Your task to perform on an android device: change the clock display to show seconds Image 0: 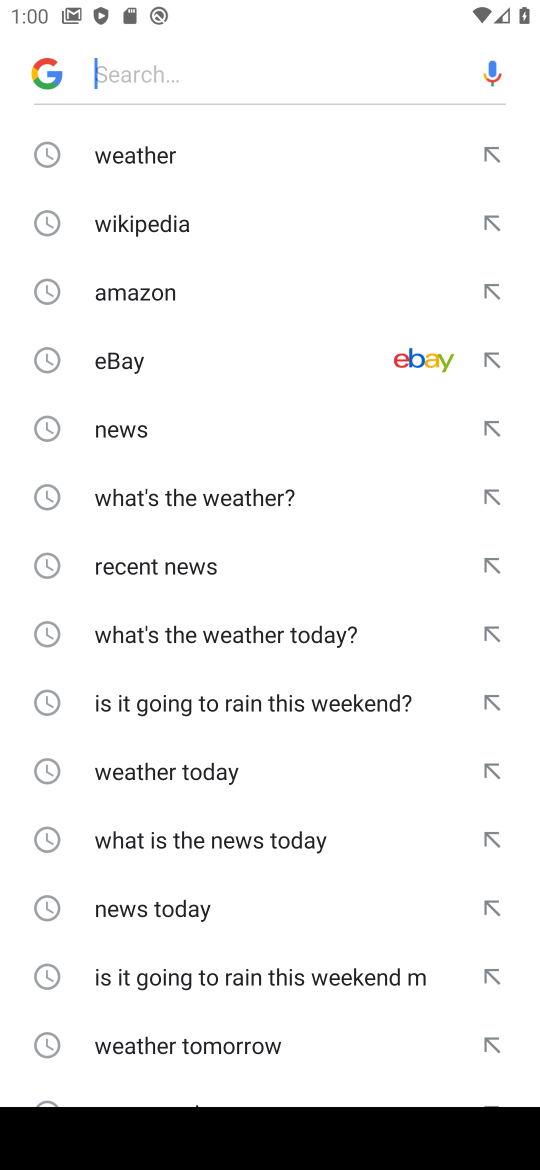
Step 0: press back button
Your task to perform on an android device: change the clock display to show seconds Image 1: 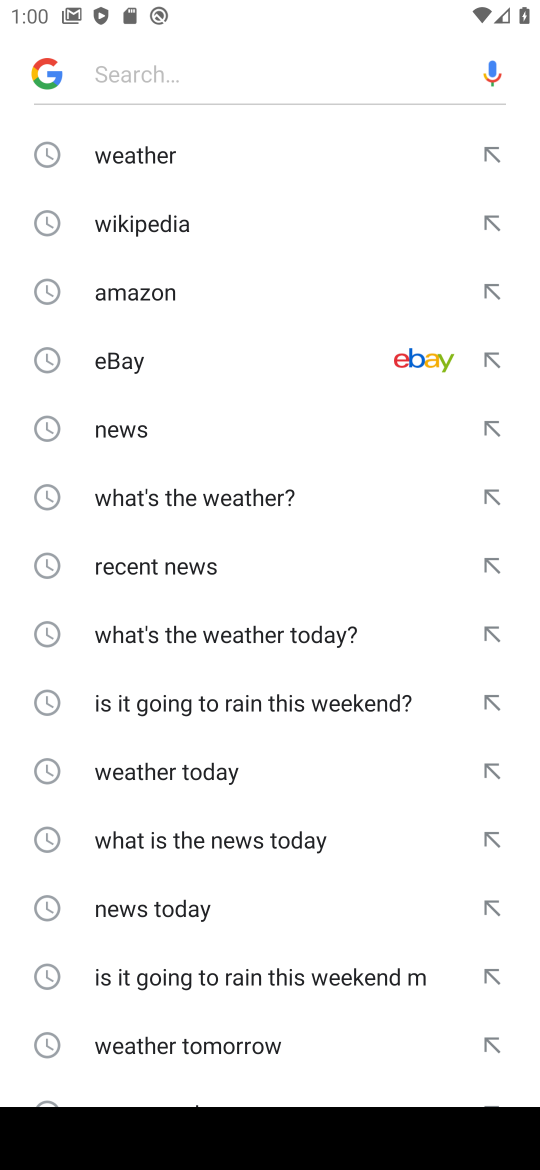
Step 1: press back button
Your task to perform on an android device: change the clock display to show seconds Image 2: 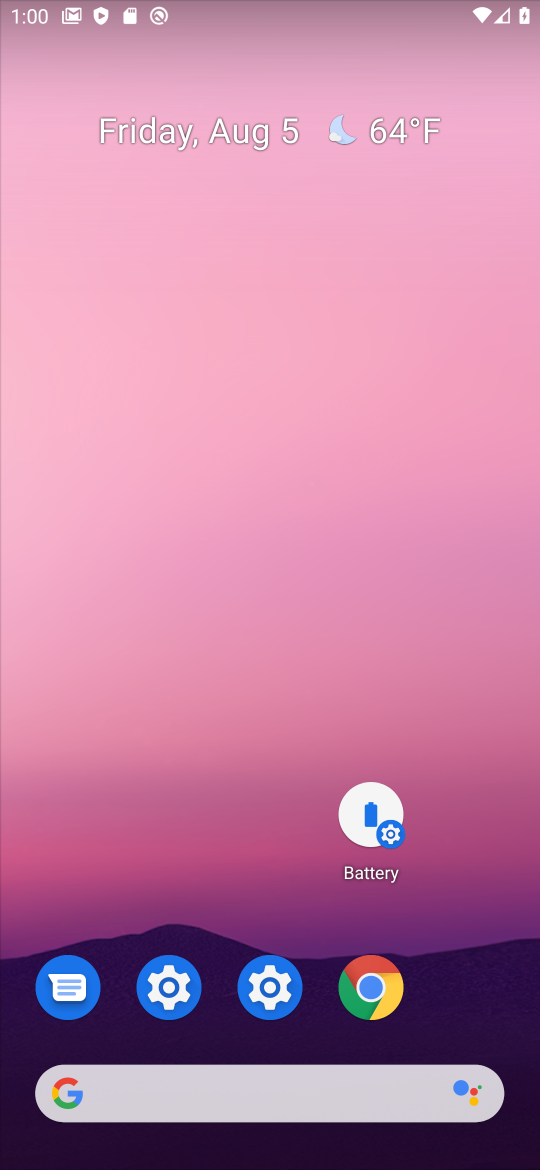
Step 2: press back button
Your task to perform on an android device: change the clock display to show seconds Image 3: 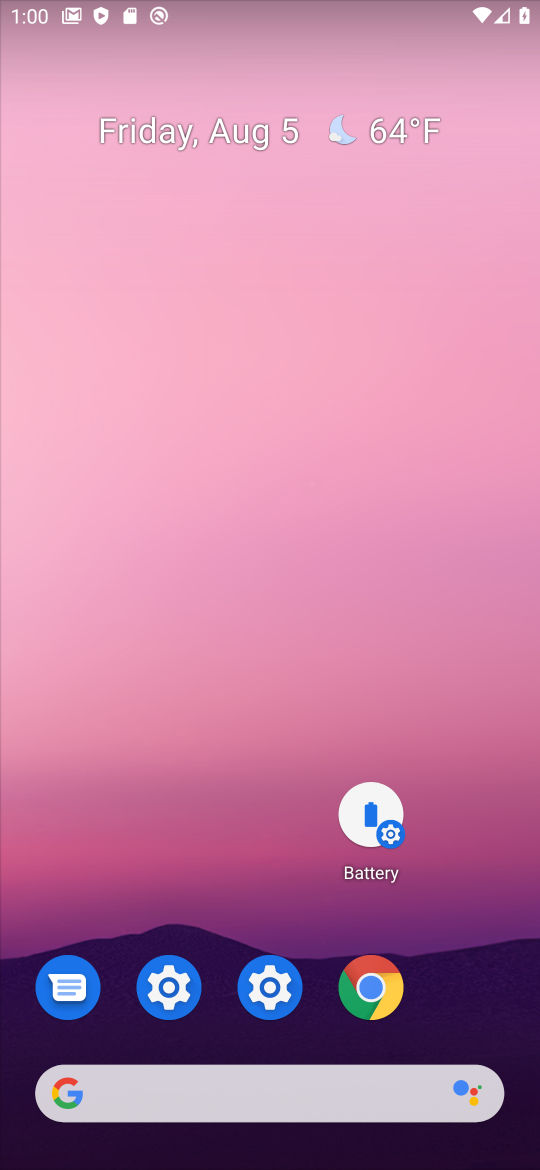
Step 3: press home button
Your task to perform on an android device: change the clock display to show seconds Image 4: 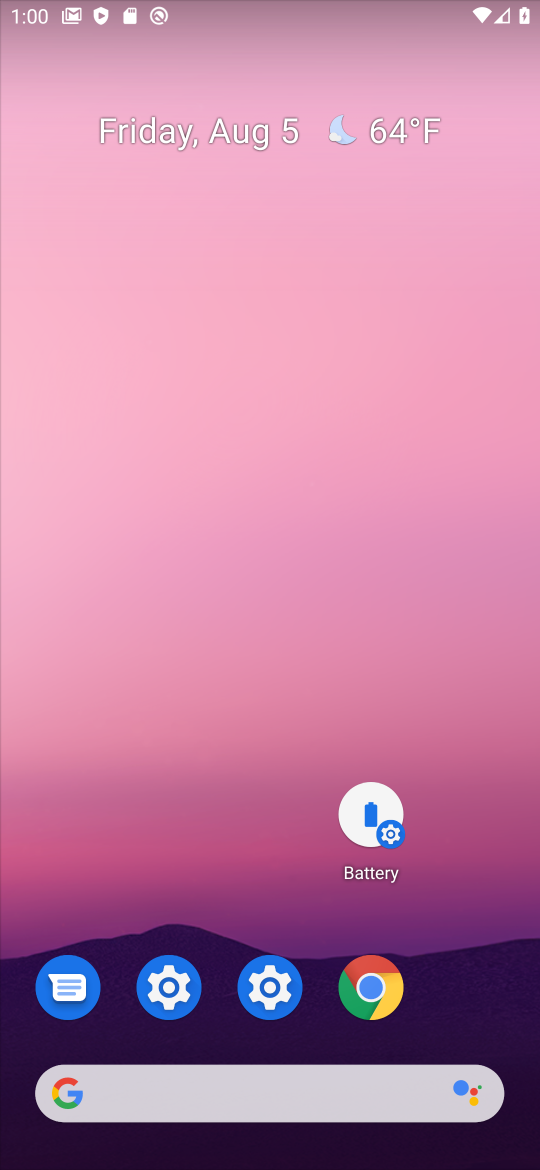
Step 4: drag from (270, 446) to (322, 147)
Your task to perform on an android device: change the clock display to show seconds Image 5: 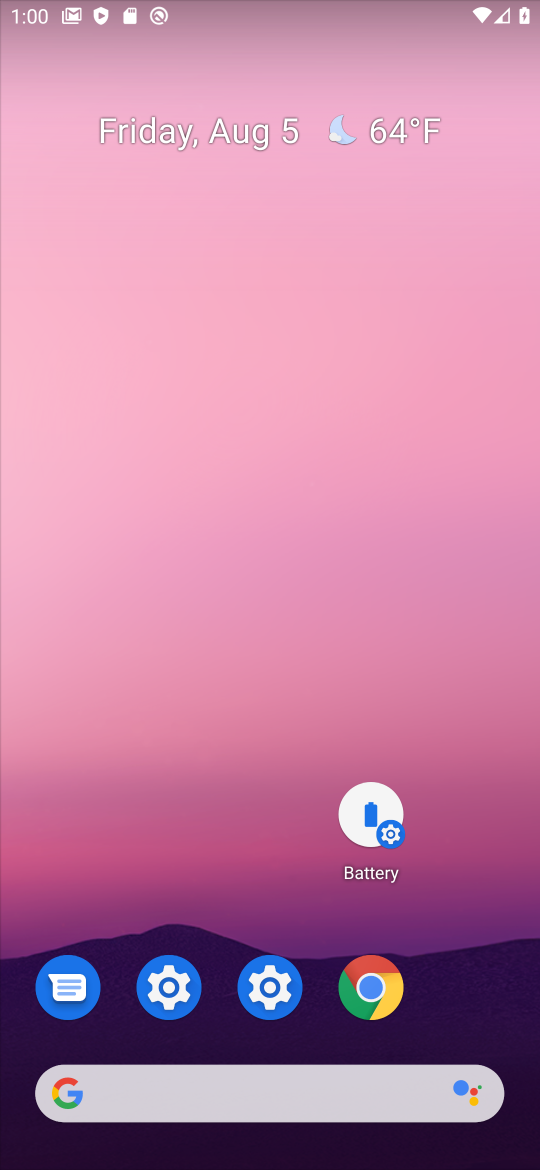
Step 5: click (231, 148)
Your task to perform on an android device: change the clock display to show seconds Image 6: 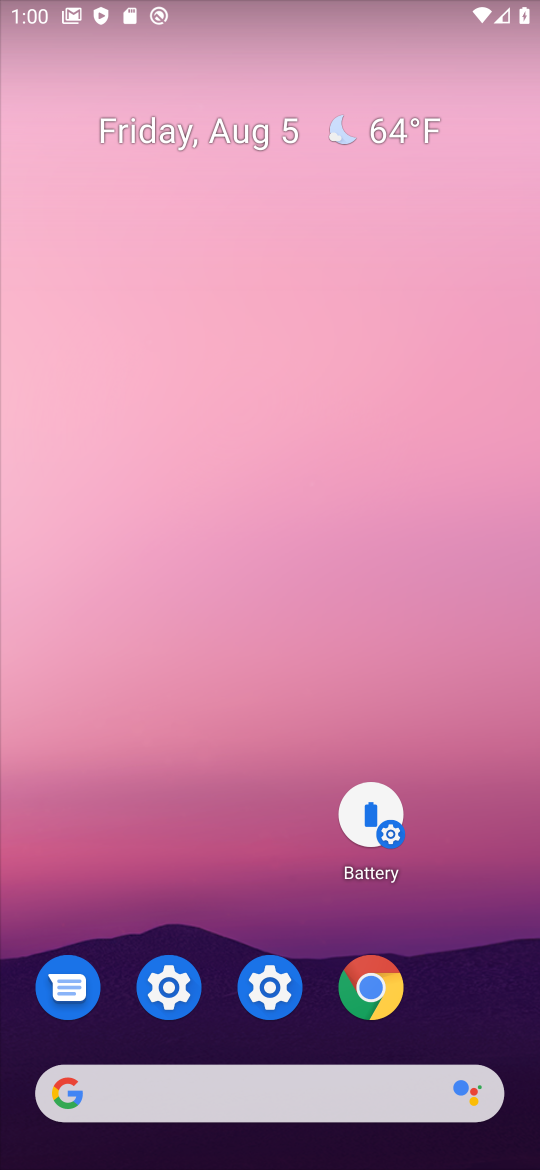
Step 6: drag from (235, 563) to (299, 593)
Your task to perform on an android device: change the clock display to show seconds Image 7: 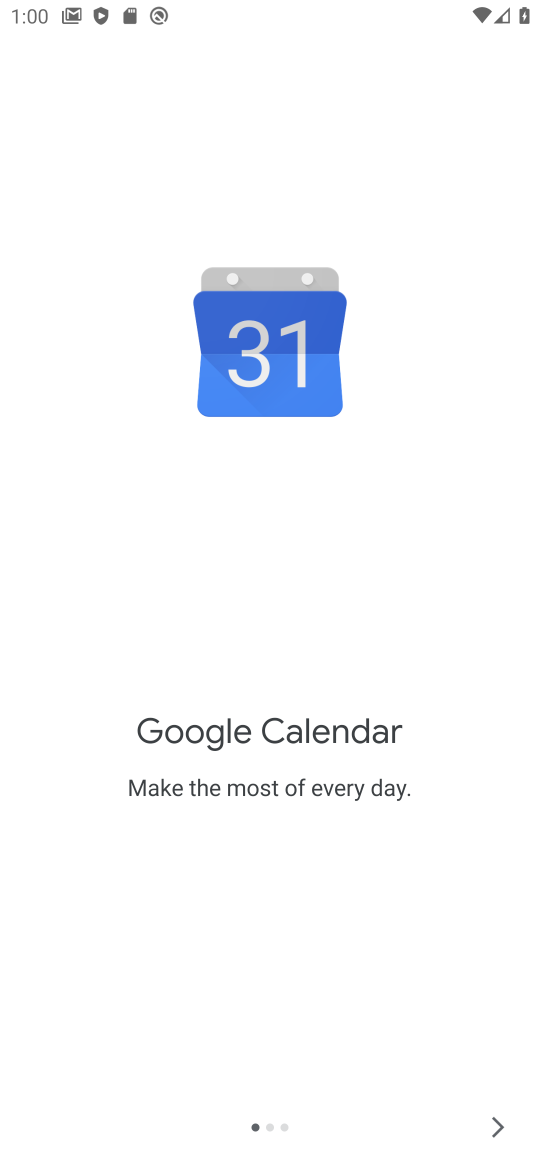
Step 7: press back button
Your task to perform on an android device: change the clock display to show seconds Image 8: 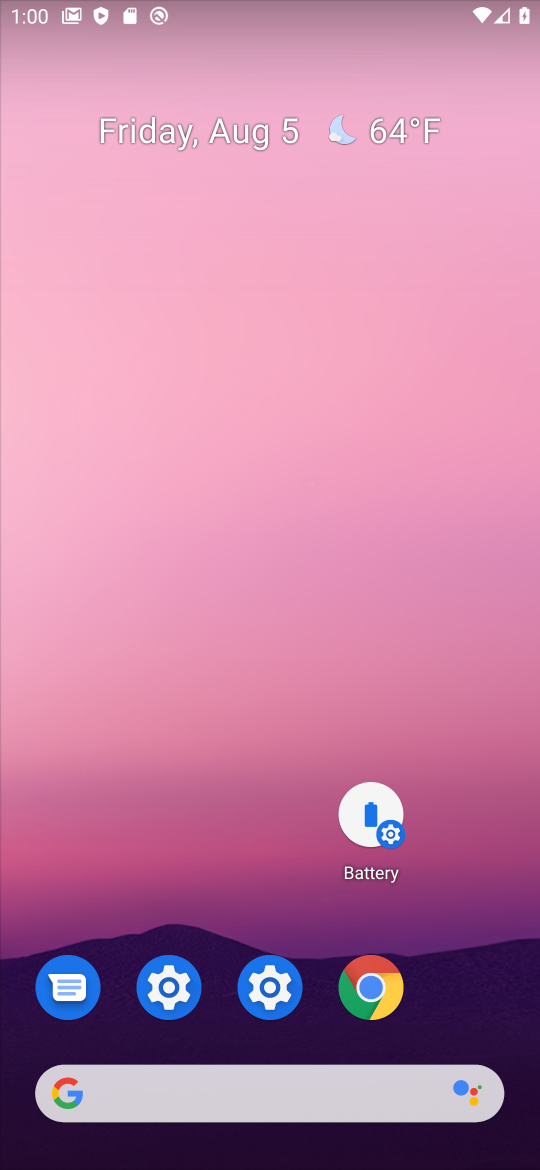
Step 8: drag from (275, 962) to (144, 525)
Your task to perform on an android device: change the clock display to show seconds Image 9: 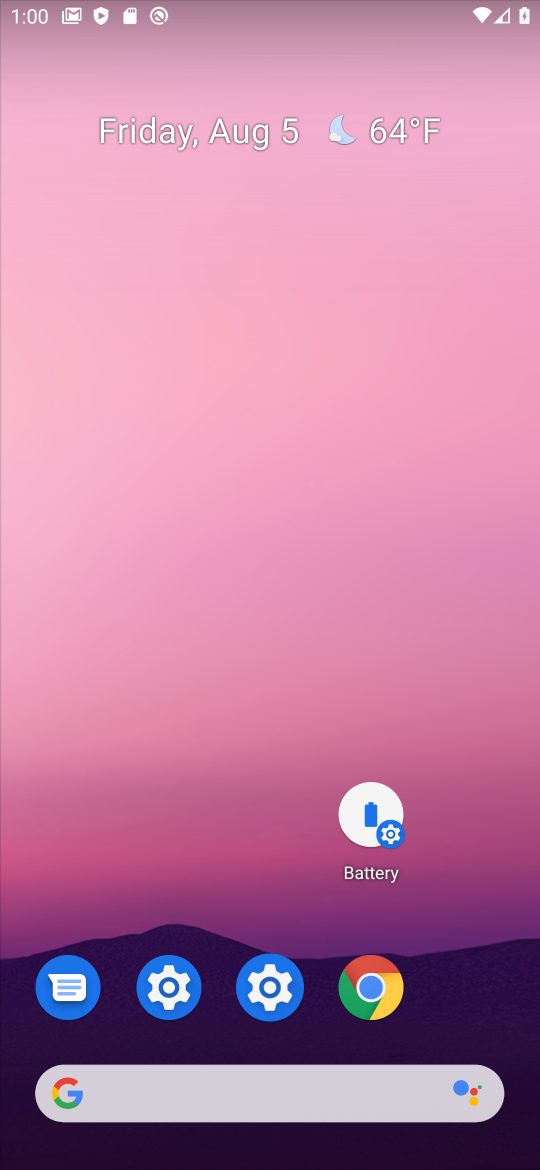
Step 9: drag from (248, 620) to (242, 452)
Your task to perform on an android device: change the clock display to show seconds Image 10: 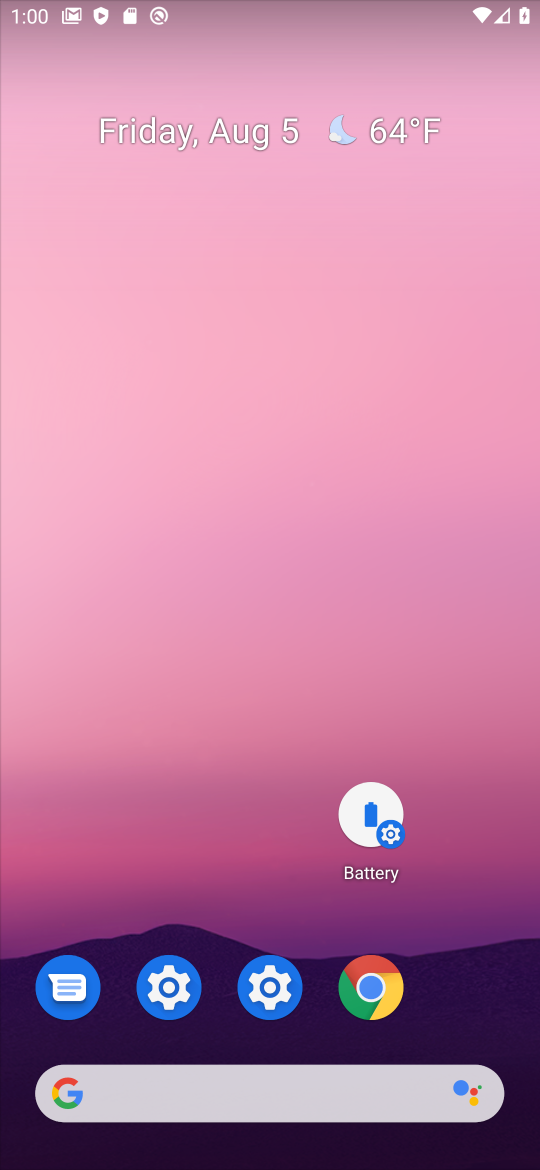
Step 10: drag from (253, 883) to (212, 506)
Your task to perform on an android device: change the clock display to show seconds Image 11: 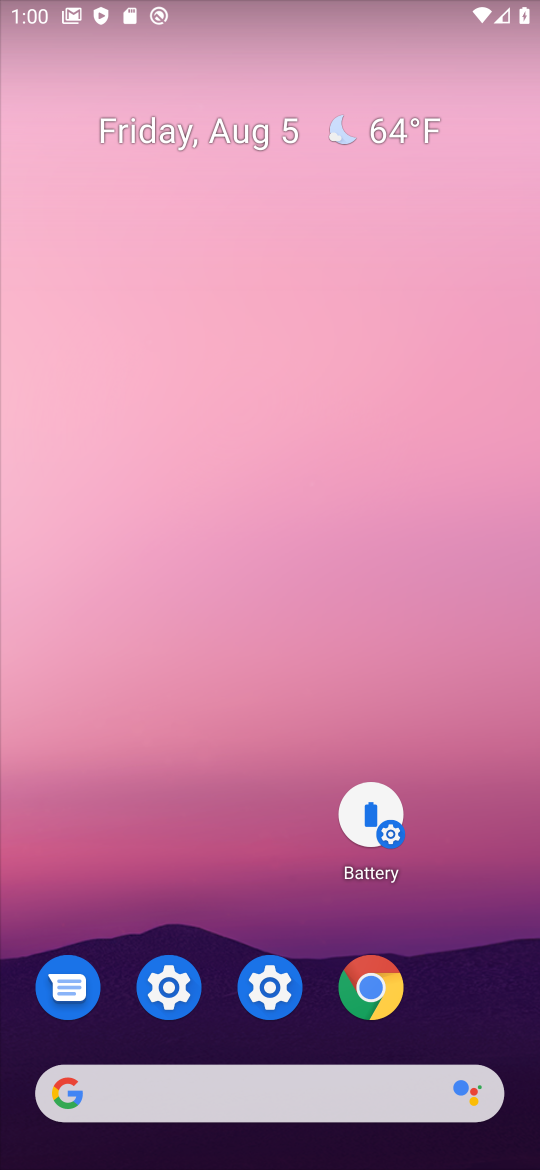
Step 11: drag from (255, 934) to (220, 421)
Your task to perform on an android device: change the clock display to show seconds Image 12: 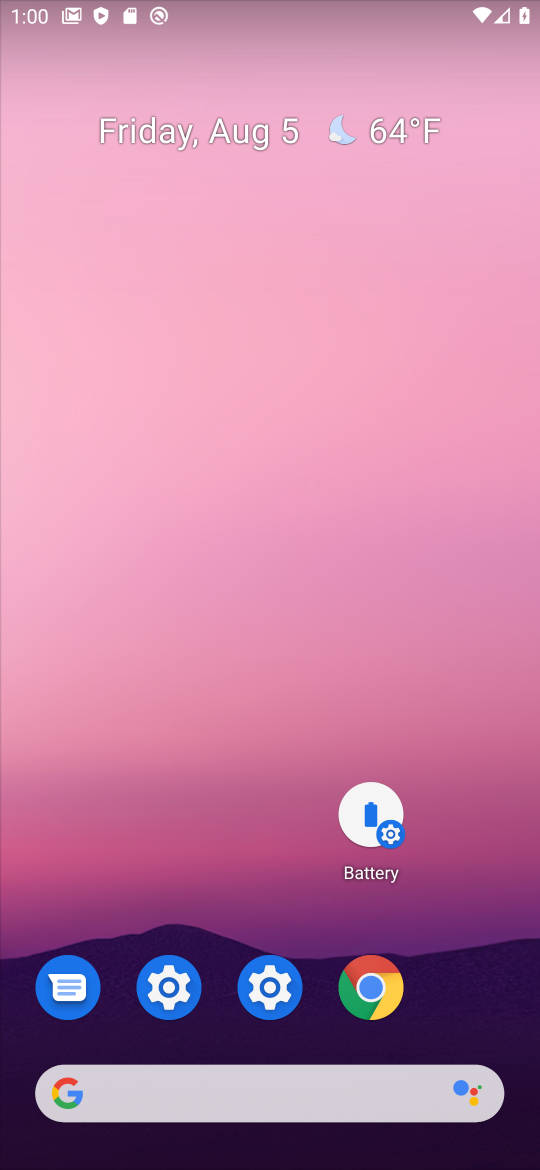
Step 12: drag from (308, 888) to (308, 405)
Your task to perform on an android device: change the clock display to show seconds Image 13: 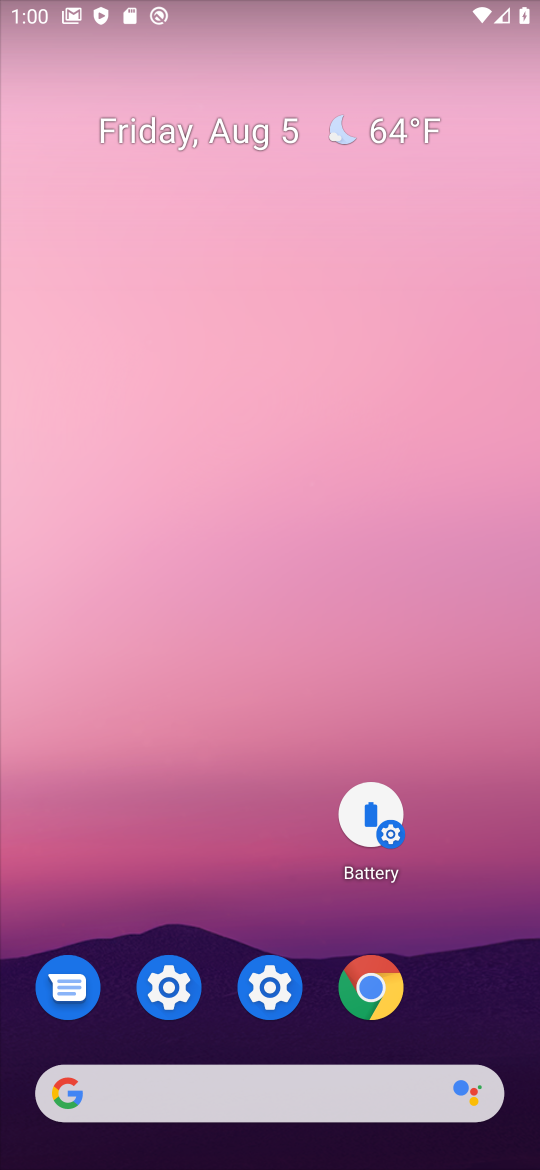
Step 13: drag from (339, 810) to (348, 237)
Your task to perform on an android device: change the clock display to show seconds Image 14: 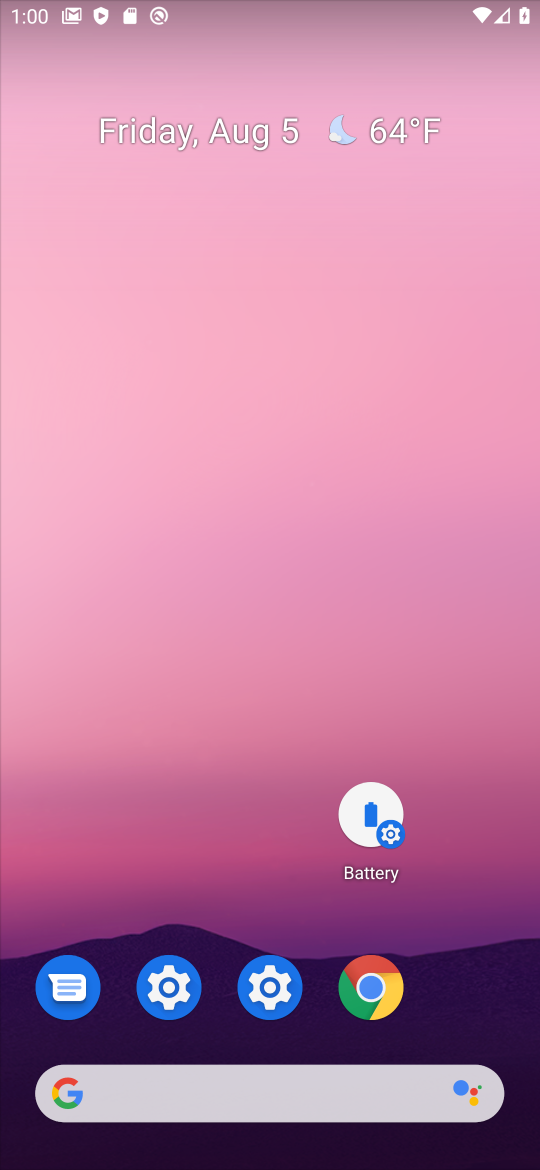
Step 14: drag from (212, 535) to (229, 429)
Your task to perform on an android device: change the clock display to show seconds Image 15: 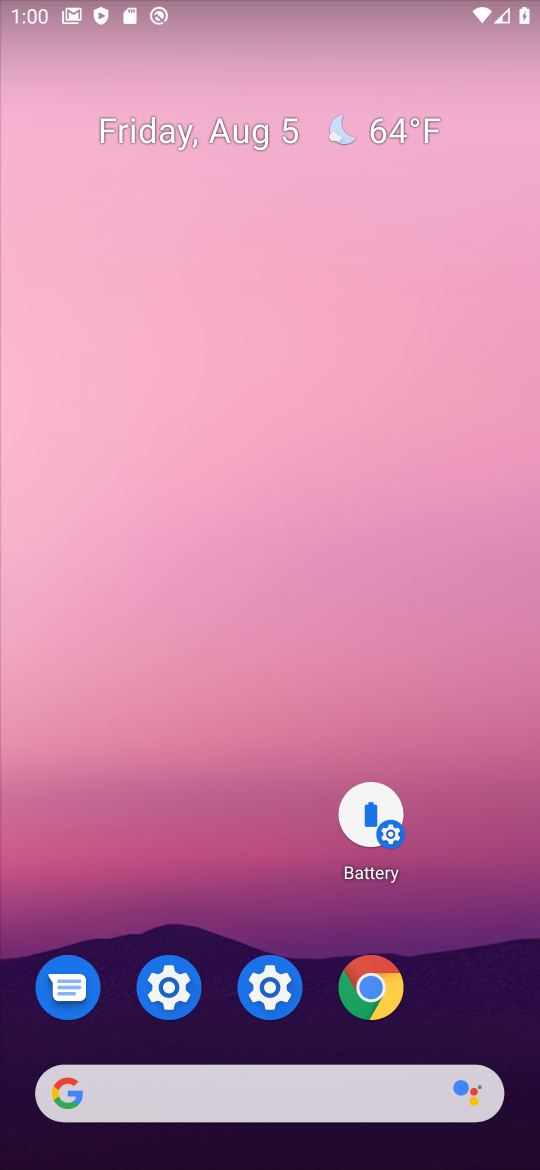
Step 15: click (301, 601)
Your task to perform on an android device: change the clock display to show seconds Image 16: 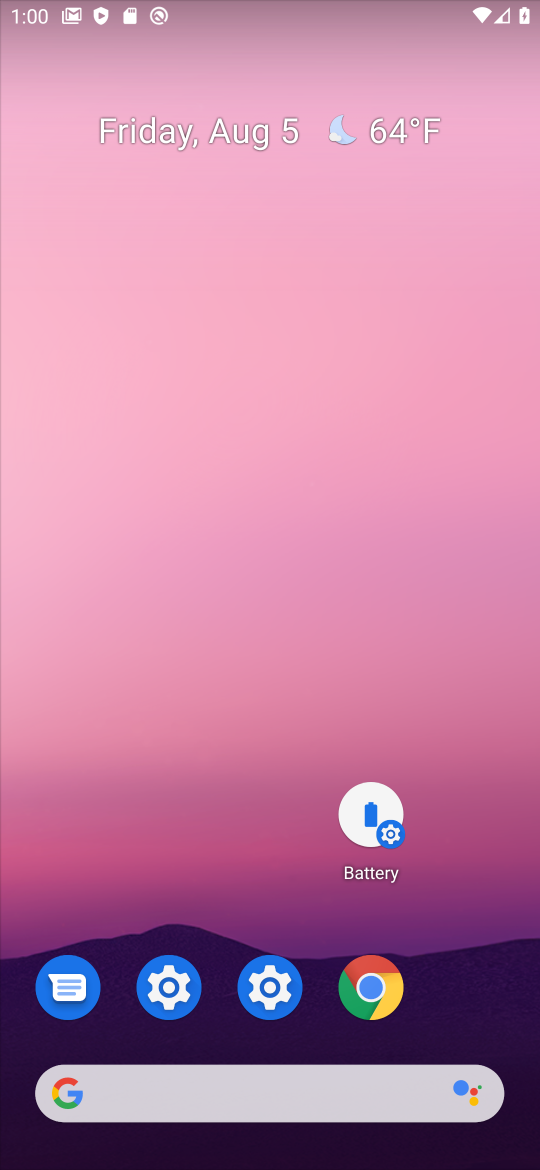
Step 16: drag from (276, 800) to (251, 416)
Your task to perform on an android device: change the clock display to show seconds Image 17: 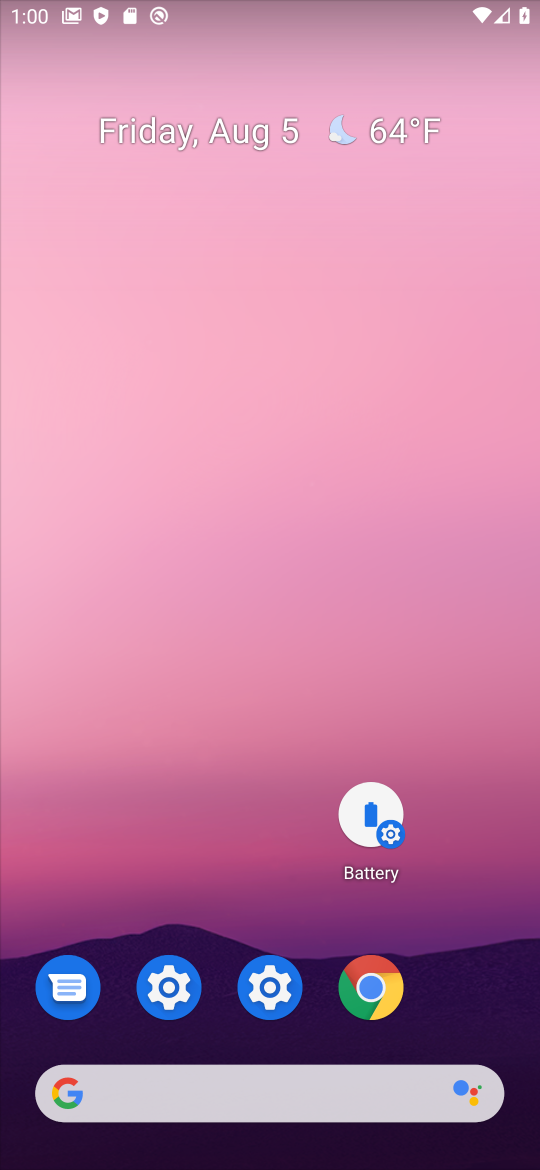
Step 17: drag from (307, 1016) to (187, 403)
Your task to perform on an android device: change the clock display to show seconds Image 18: 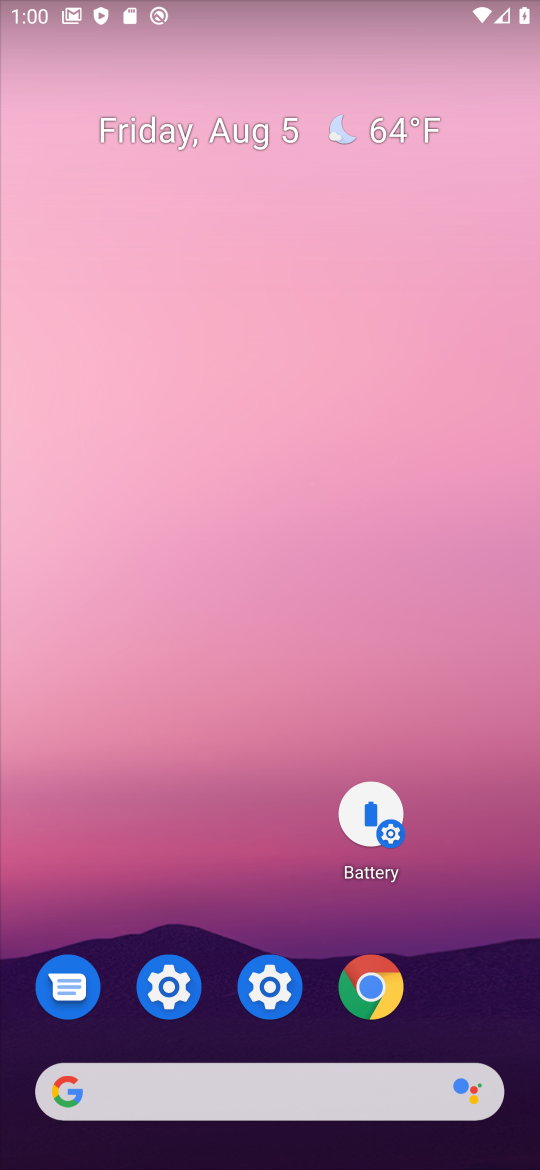
Step 18: drag from (270, 990) to (345, 676)
Your task to perform on an android device: change the clock display to show seconds Image 19: 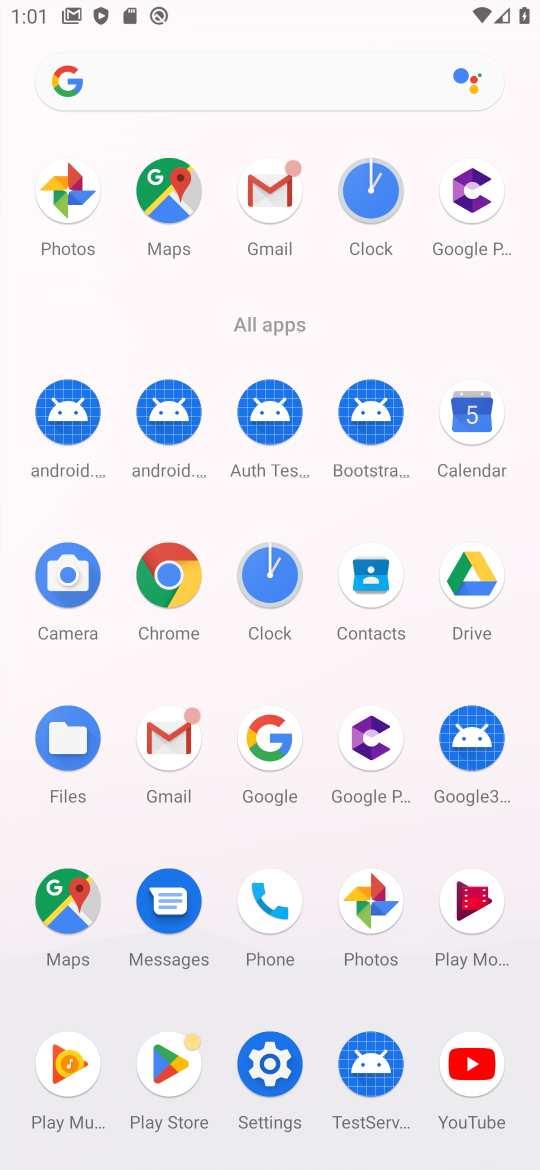
Step 19: click (369, 204)
Your task to perform on an android device: change the clock display to show seconds Image 20: 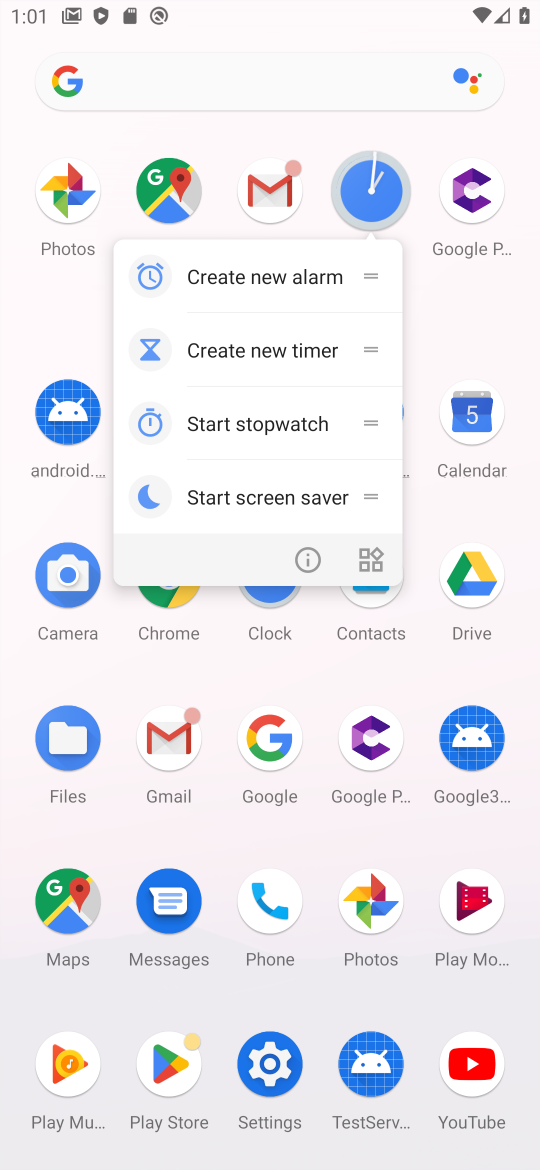
Step 20: click (375, 198)
Your task to perform on an android device: change the clock display to show seconds Image 21: 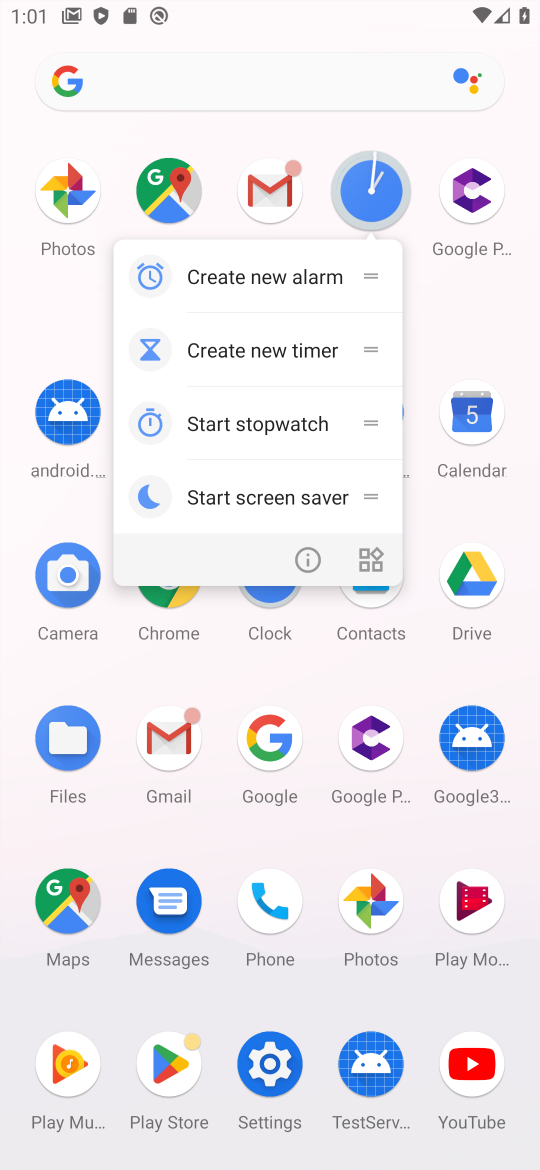
Step 21: click (375, 193)
Your task to perform on an android device: change the clock display to show seconds Image 22: 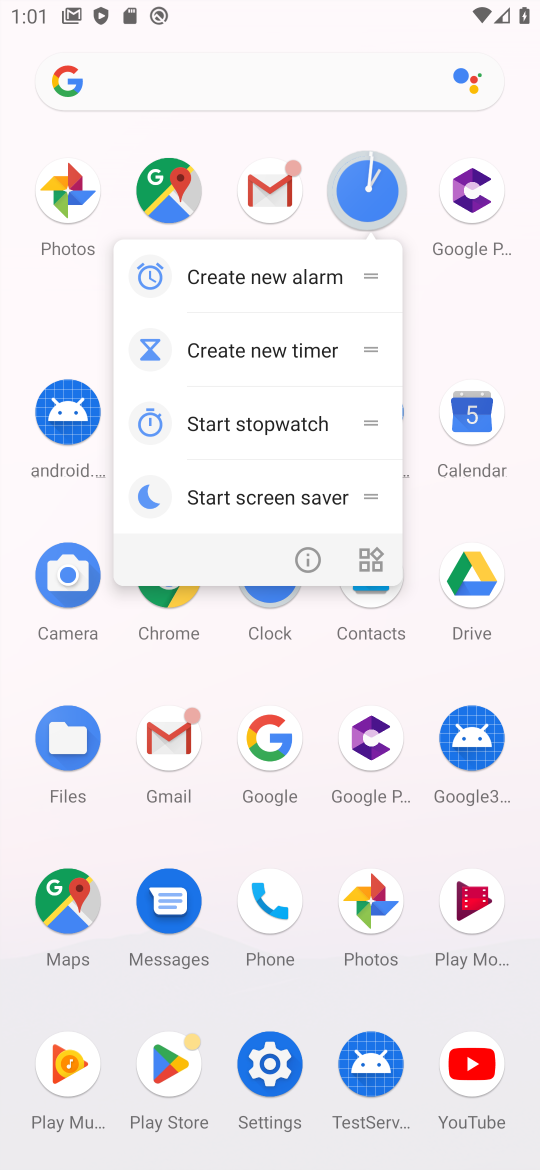
Step 22: click (371, 193)
Your task to perform on an android device: change the clock display to show seconds Image 23: 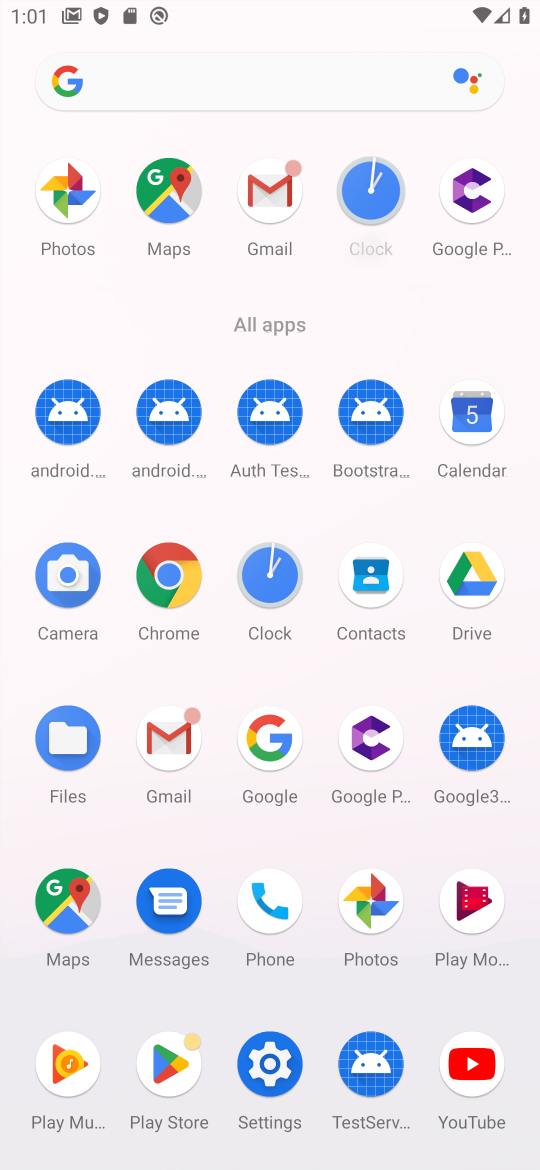
Step 23: click (373, 190)
Your task to perform on an android device: change the clock display to show seconds Image 24: 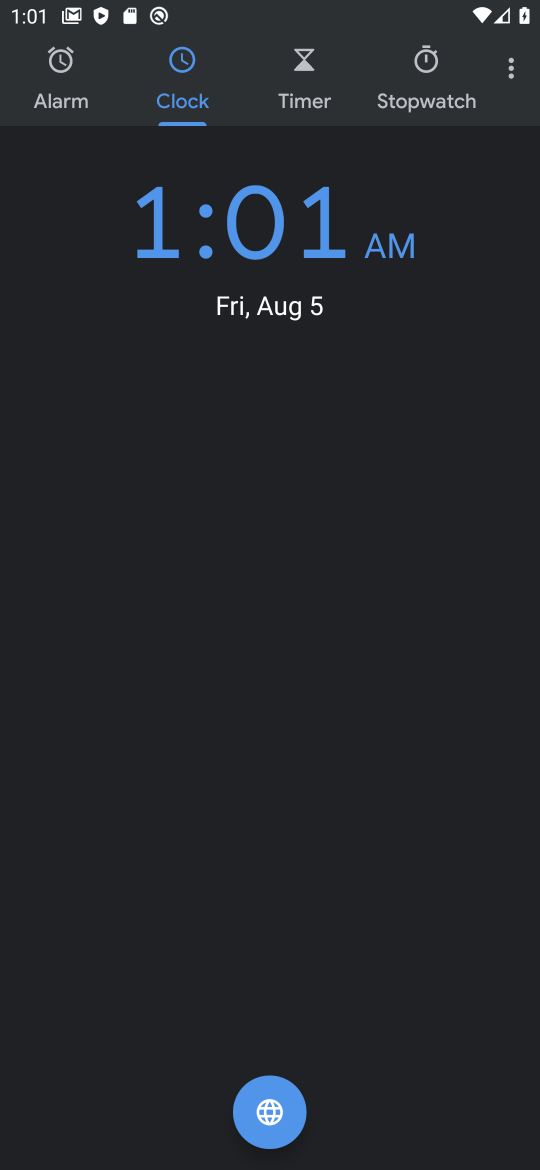
Step 24: click (501, 73)
Your task to perform on an android device: change the clock display to show seconds Image 25: 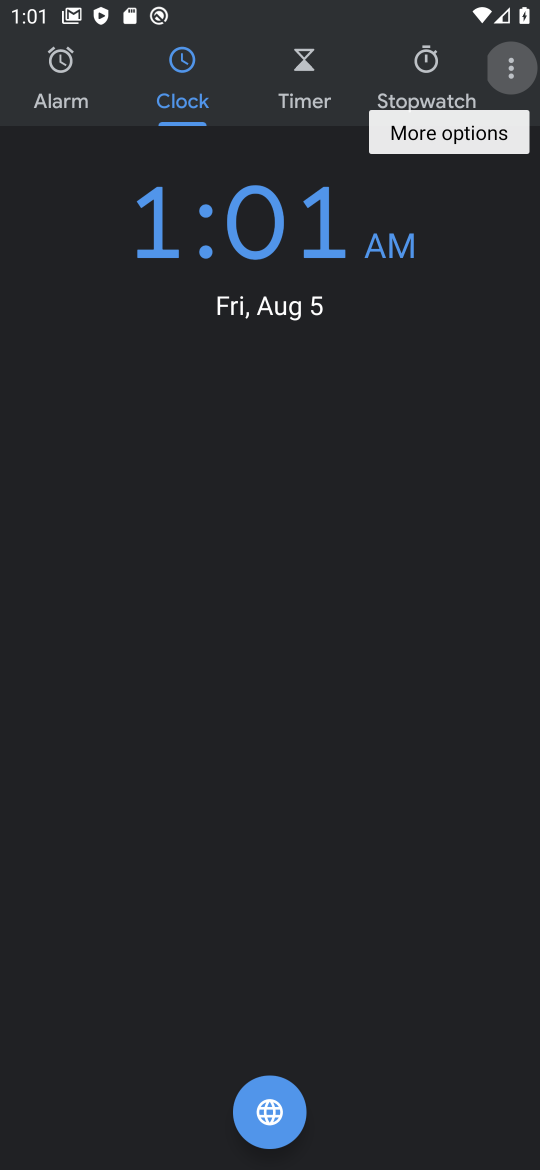
Step 25: click (502, 75)
Your task to perform on an android device: change the clock display to show seconds Image 26: 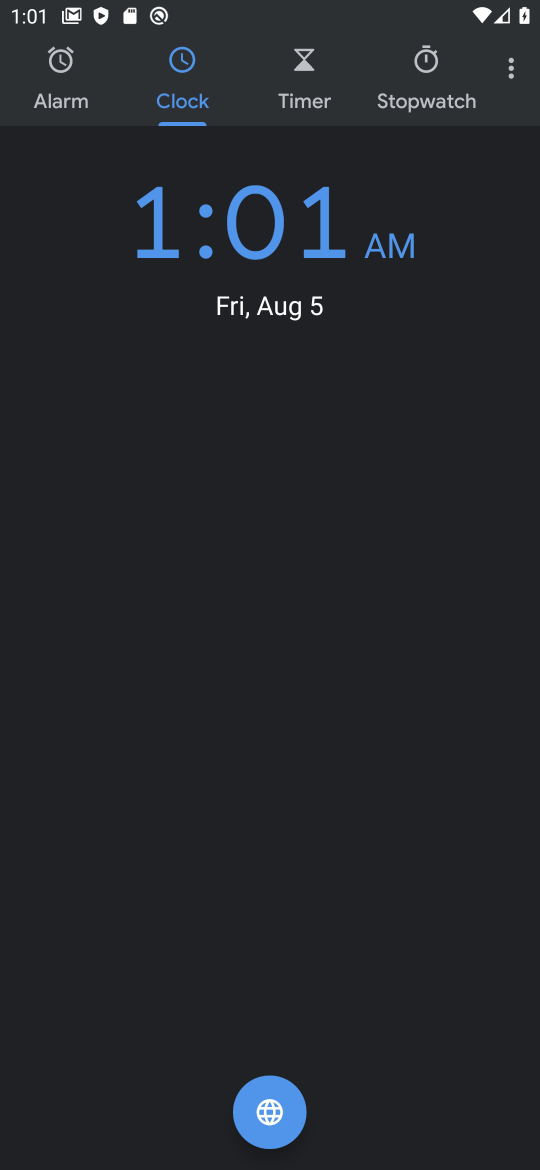
Step 26: click (508, 61)
Your task to perform on an android device: change the clock display to show seconds Image 27: 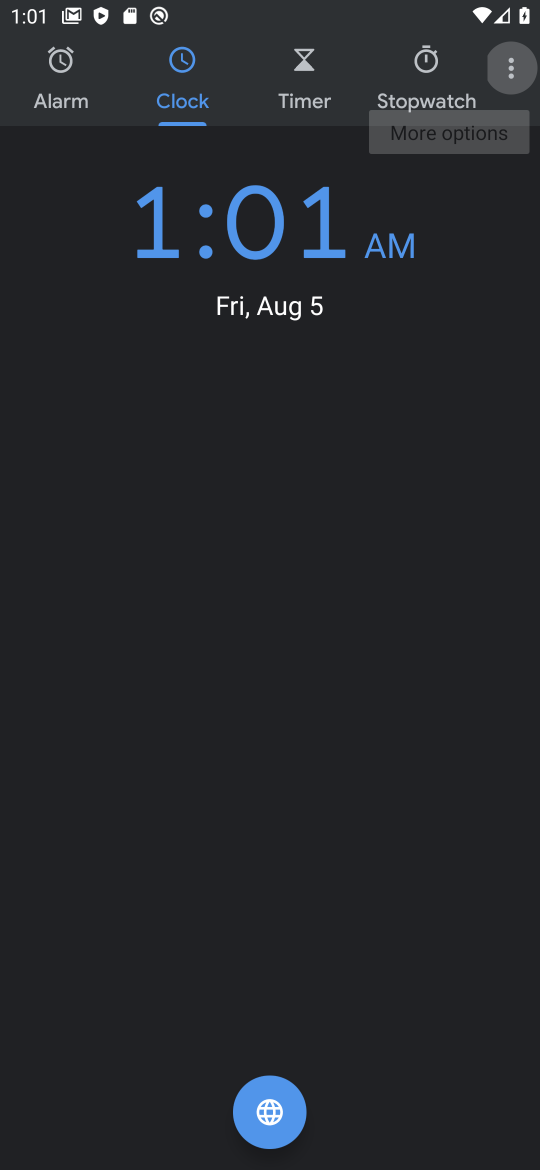
Step 27: click (508, 70)
Your task to perform on an android device: change the clock display to show seconds Image 28: 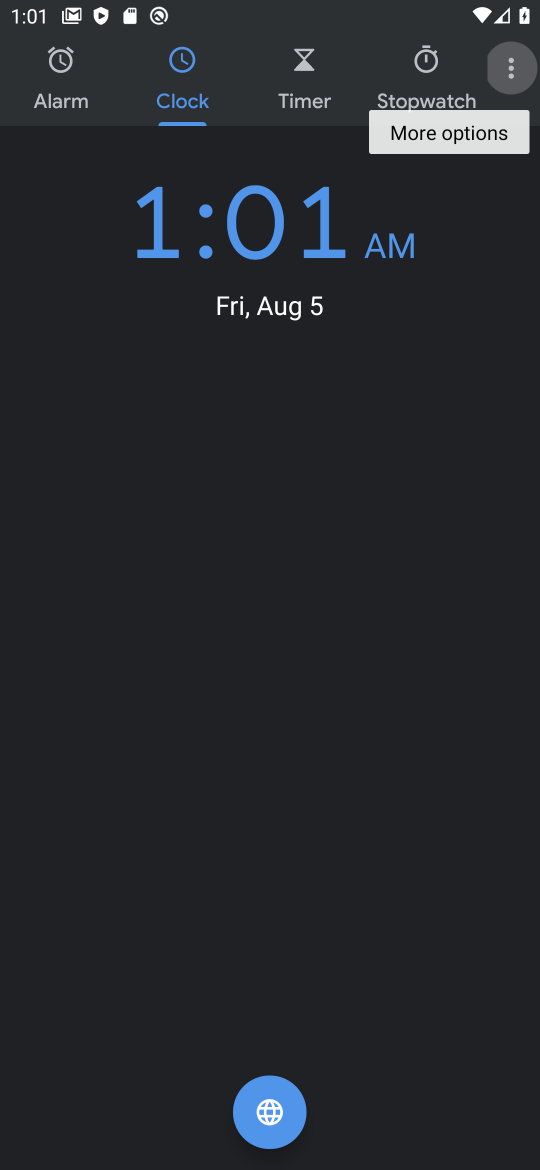
Step 28: click (508, 74)
Your task to perform on an android device: change the clock display to show seconds Image 29: 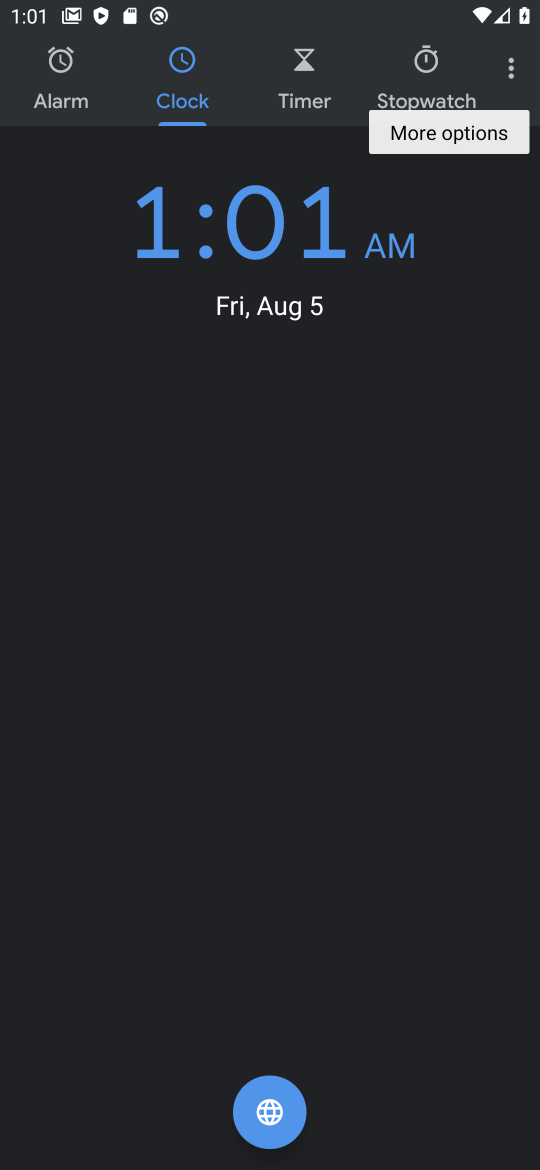
Step 29: click (505, 73)
Your task to perform on an android device: change the clock display to show seconds Image 30: 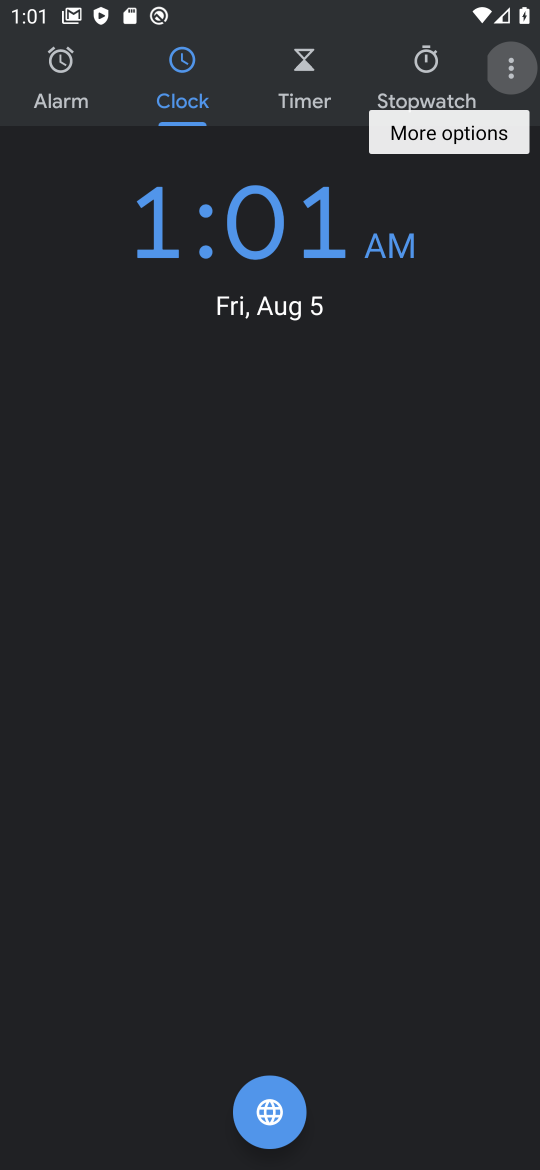
Step 30: click (512, 85)
Your task to perform on an android device: change the clock display to show seconds Image 31: 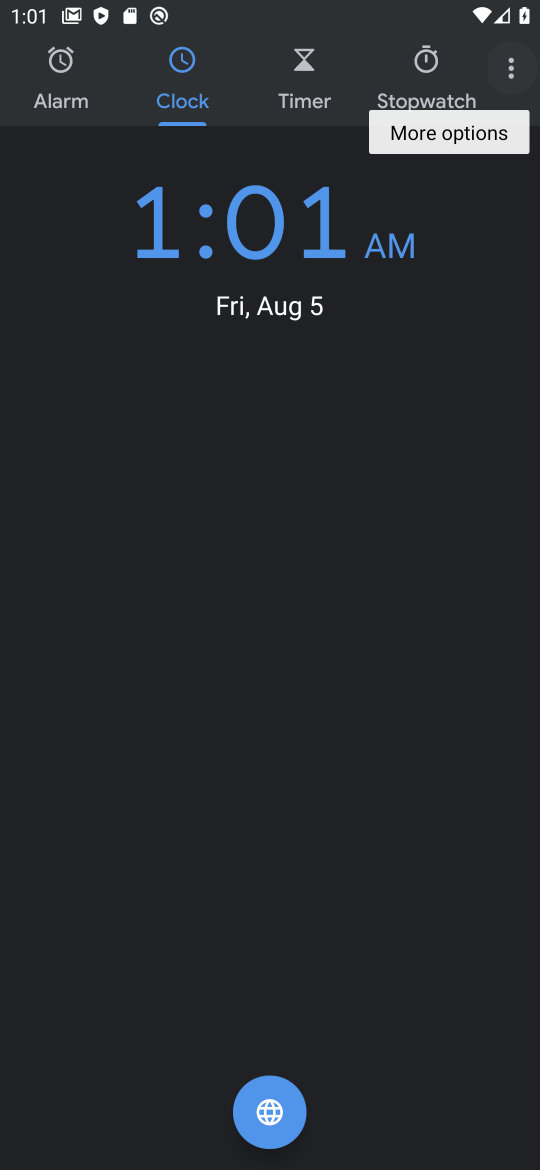
Step 31: click (512, 87)
Your task to perform on an android device: change the clock display to show seconds Image 32: 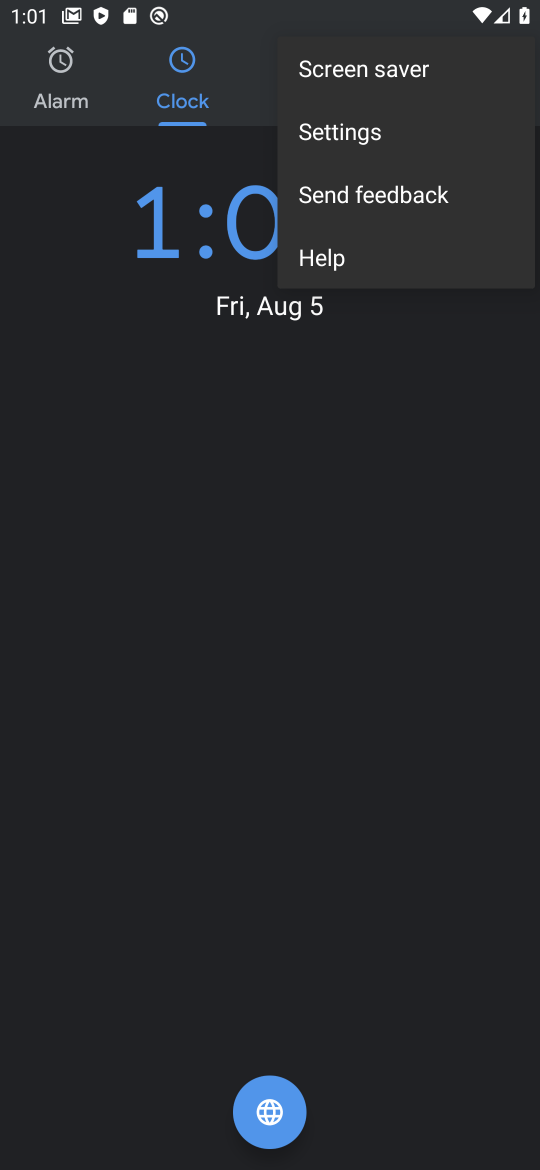
Step 32: click (343, 125)
Your task to perform on an android device: change the clock display to show seconds Image 33: 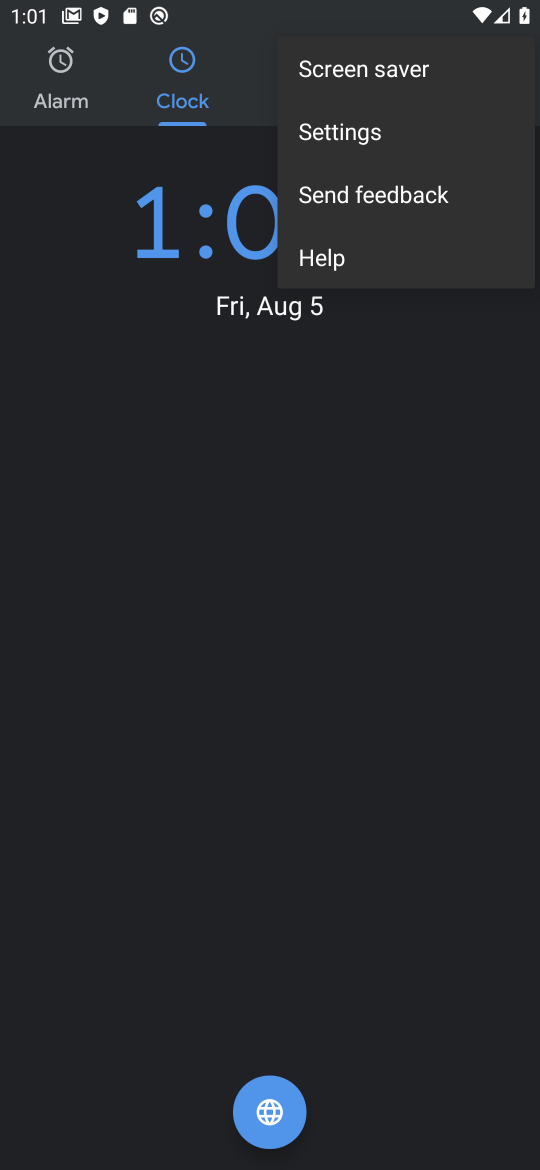
Step 33: click (365, 140)
Your task to perform on an android device: change the clock display to show seconds Image 34: 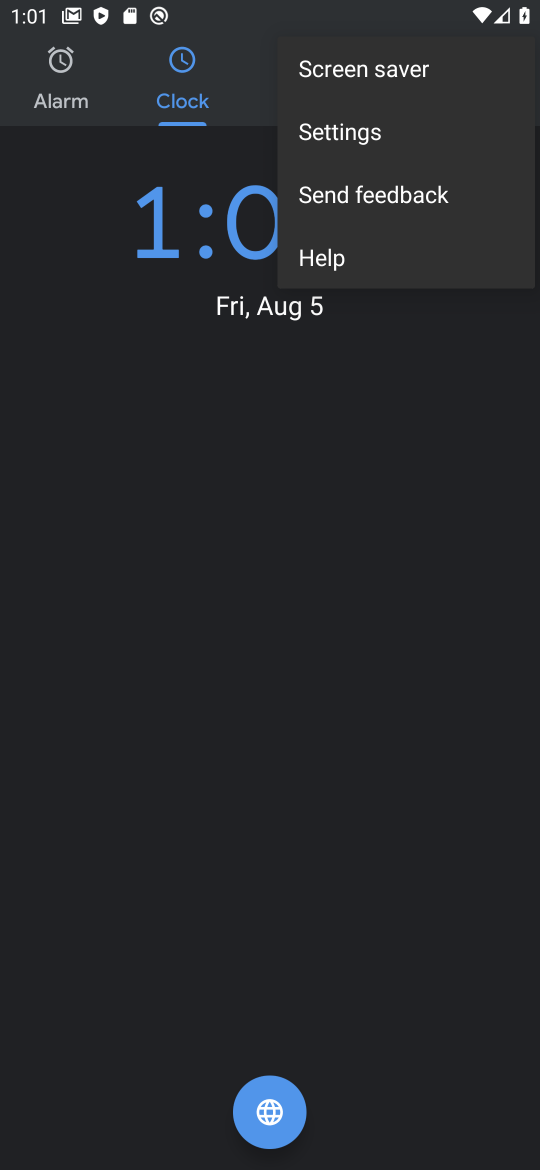
Step 34: click (365, 142)
Your task to perform on an android device: change the clock display to show seconds Image 35: 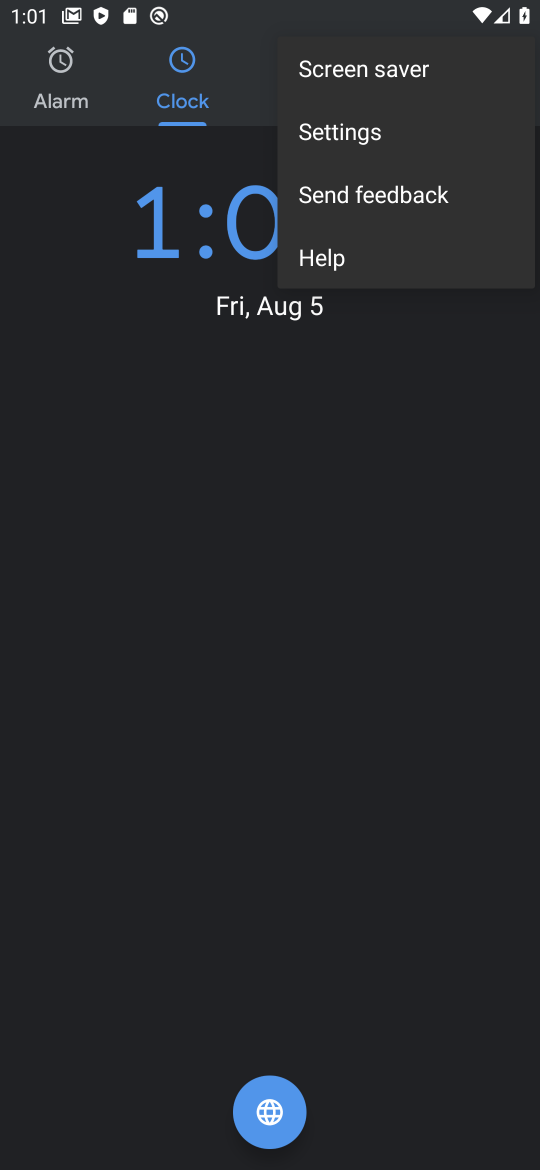
Step 35: click (365, 142)
Your task to perform on an android device: change the clock display to show seconds Image 36: 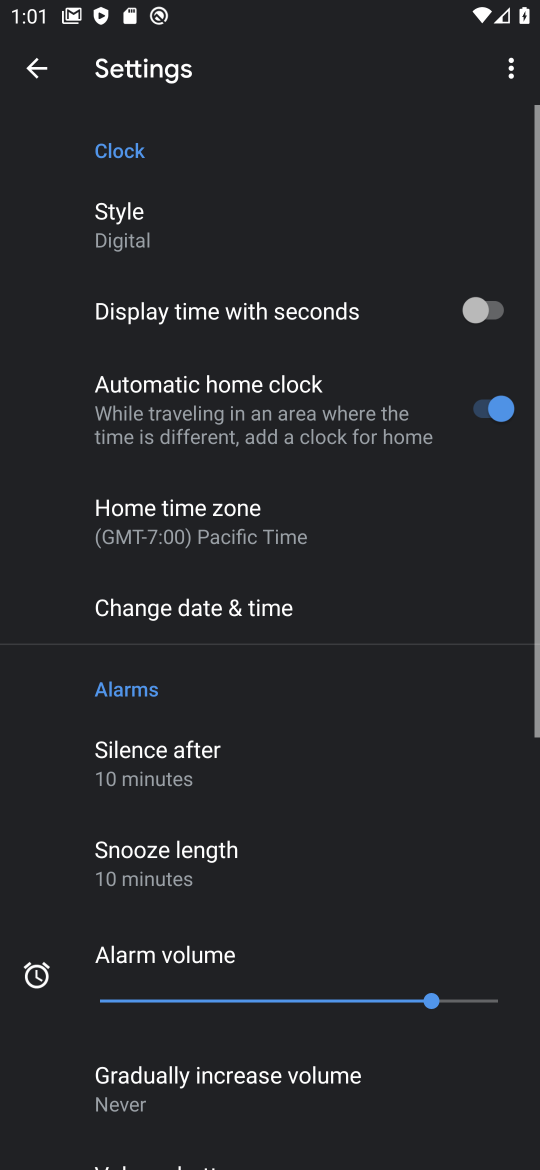
Step 36: click (365, 142)
Your task to perform on an android device: change the clock display to show seconds Image 37: 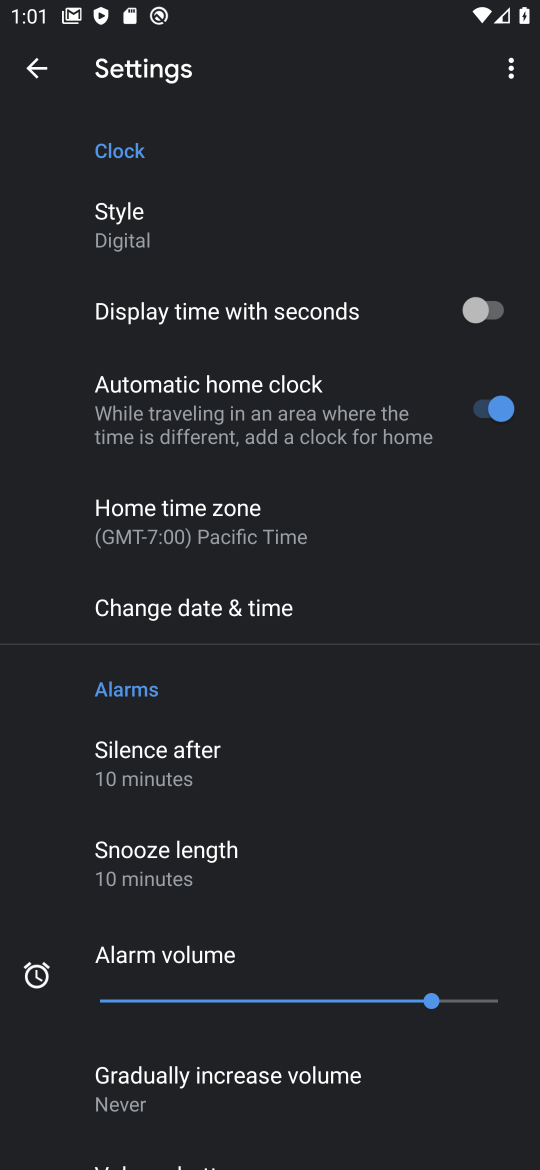
Step 37: click (476, 304)
Your task to perform on an android device: change the clock display to show seconds Image 38: 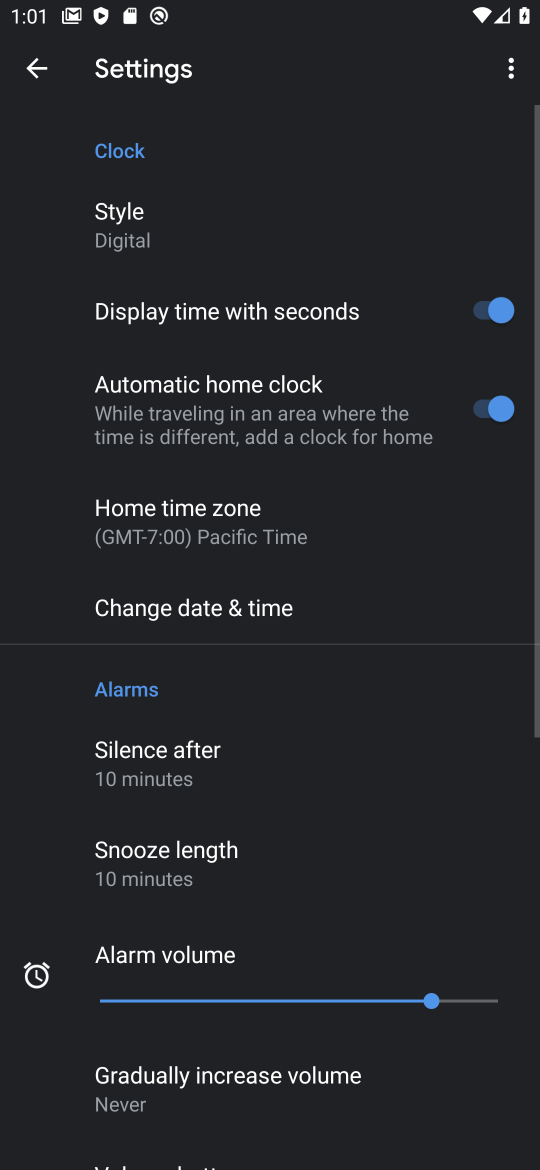
Step 38: task complete